Your task to perform on an android device: make emails show in primary in the gmail app Image 0: 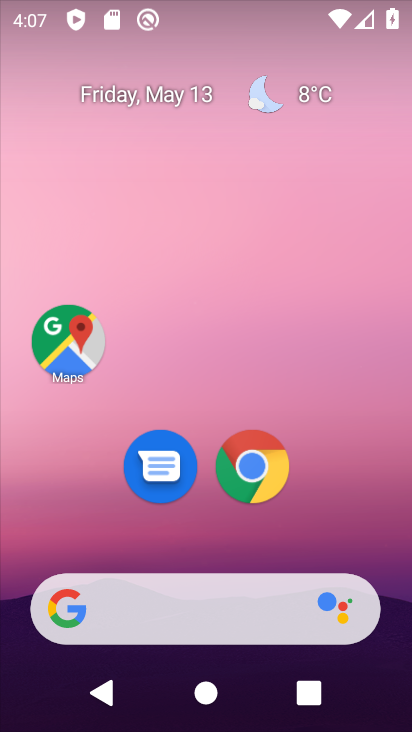
Step 0: drag from (393, 614) to (373, 171)
Your task to perform on an android device: make emails show in primary in the gmail app Image 1: 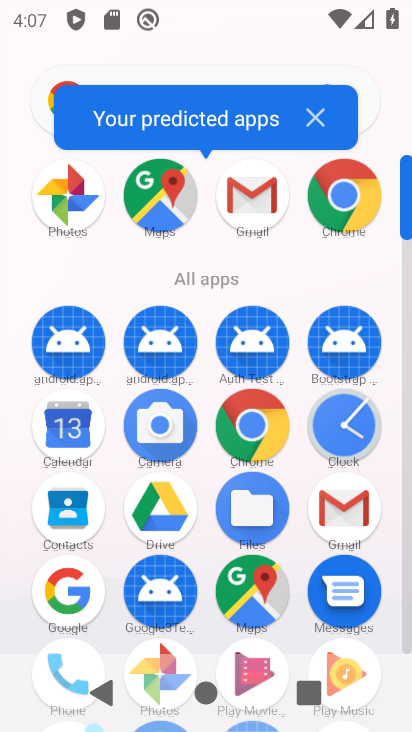
Step 1: click (345, 503)
Your task to perform on an android device: make emails show in primary in the gmail app Image 2: 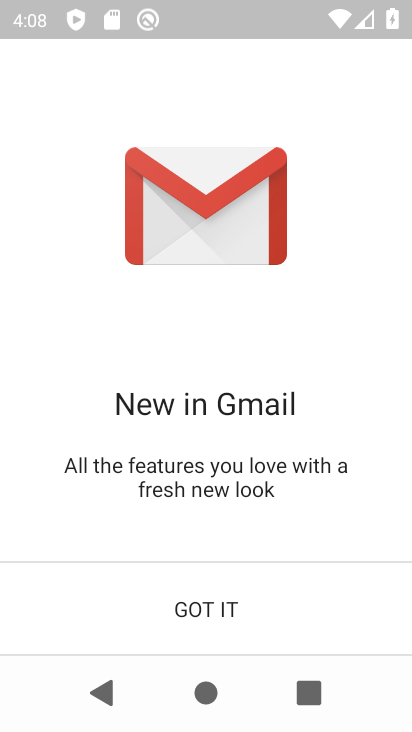
Step 2: click (232, 601)
Your task to perform on an android device: make emails show in primary in the gmail app Image 3: 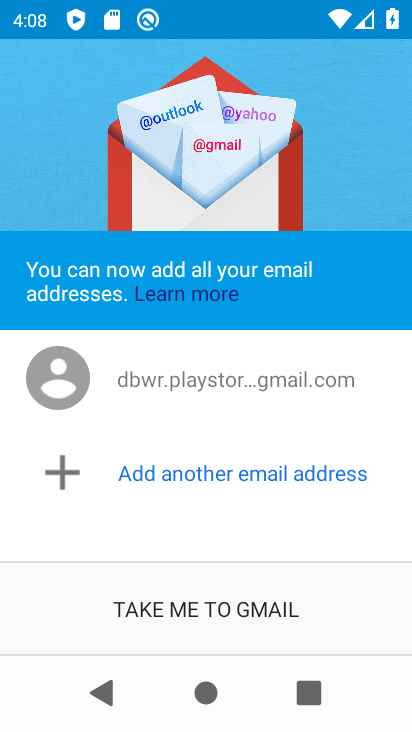
Step 3: click (212, 616)
Your task to perform on an android device: make emails show in primary in the gmail app Image 4: 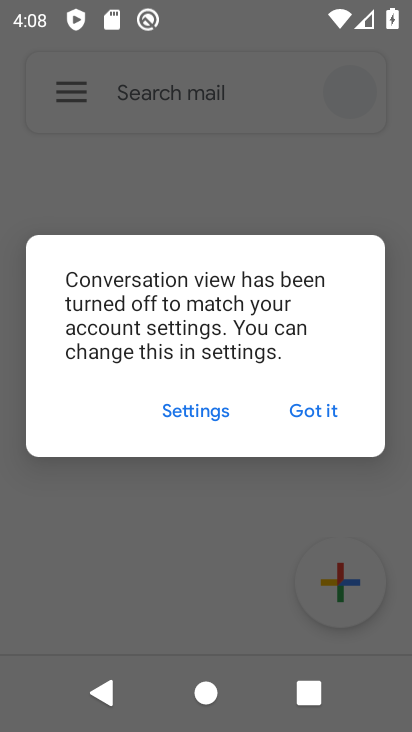
Step 4: click (313, 412)
Your task to perform on an android device: make emails show in primary in the gmail app Image 5: 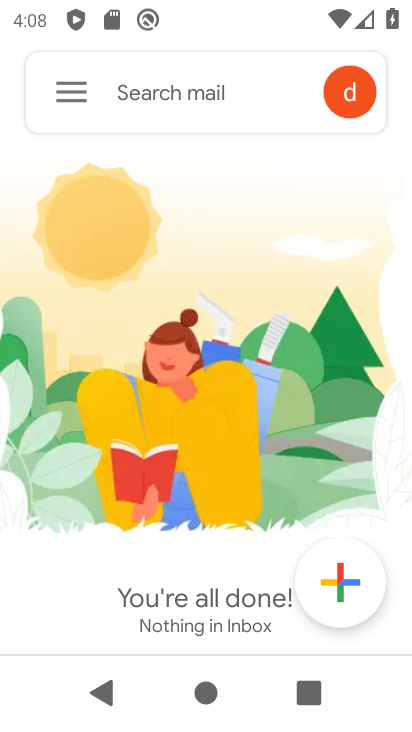
Step 5: click (73, 93)
Your task to perform on an android device: make emails show in primary in the gmail app Image 6: 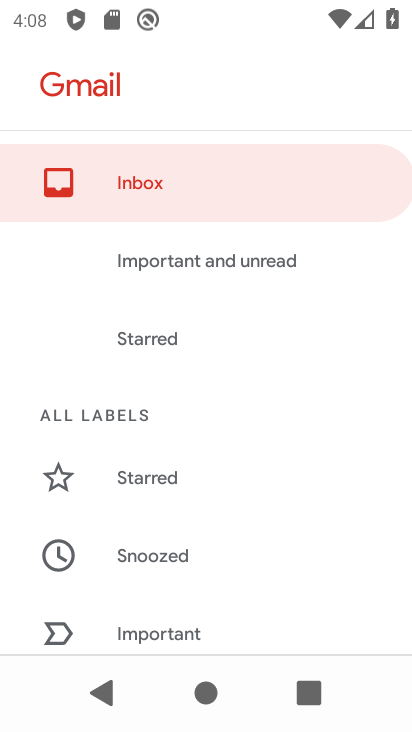
Step 6: drag from (261, 611) to (289, 181)
Your task to perform on an android device: make emails show in primary in the gmail app Image 7: 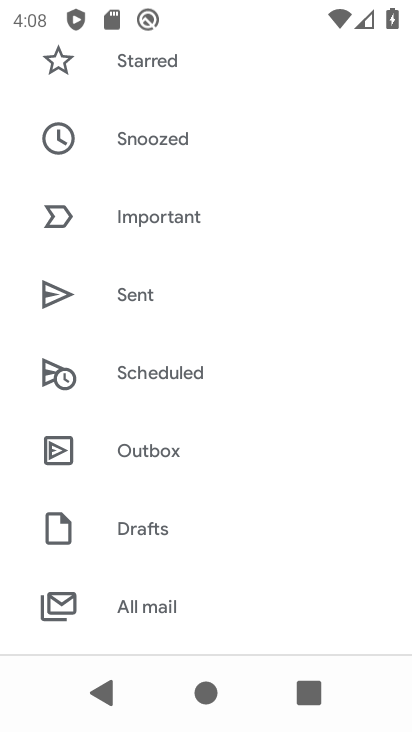
Step 7: drag from (243, 568) to (274, 228)
Your task to perform on an android device: make emails show in primary in the gmail app Image 8: 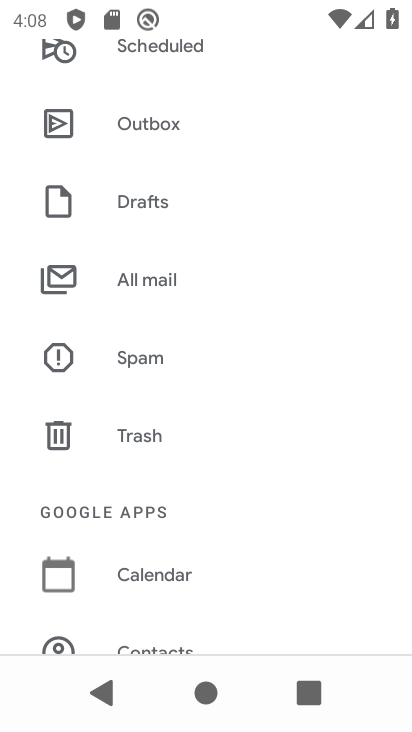
Step 8: drag from (259, 592) to (230, 131)
Your task to perform on an android device: make emails show in primary in the gmail app Image 9: 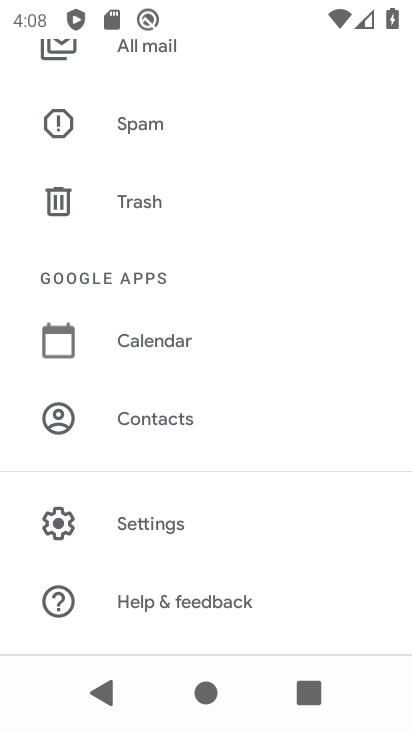
Step 9: click (163, 532)
Your task to perform on an android device: make emails show in primary in the gmail app Image 10: 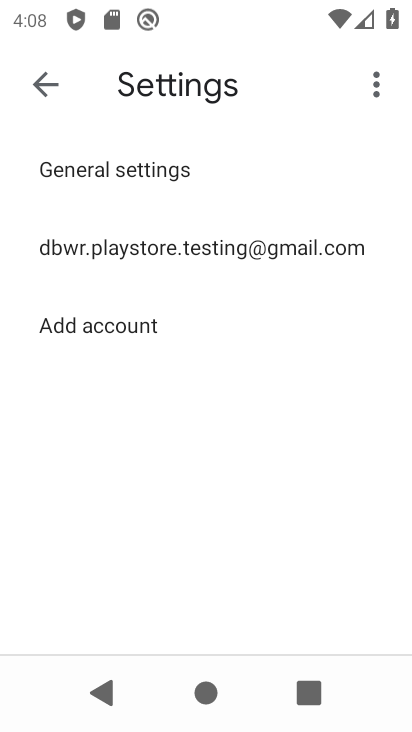
Step 10: click (149, 238)
Your task to perform on an android device: make emails show in primary in the gmail app Image 11: 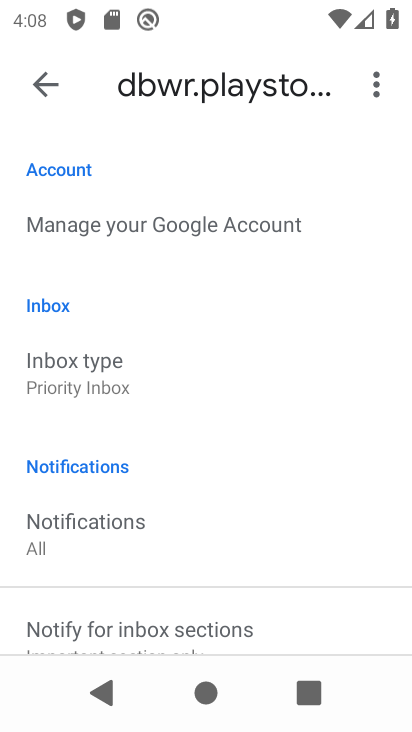
Step 11: click (84, 377)
Your task to perform on an android device: make emails show in primary in the gmail app Image 12: 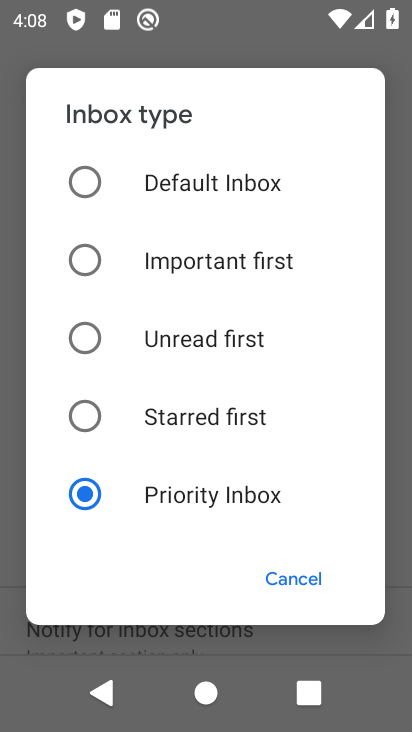
Step 12: click (88, 184)
Your task to perform on an android device: make emails show in primary in the gmail app Image 13: 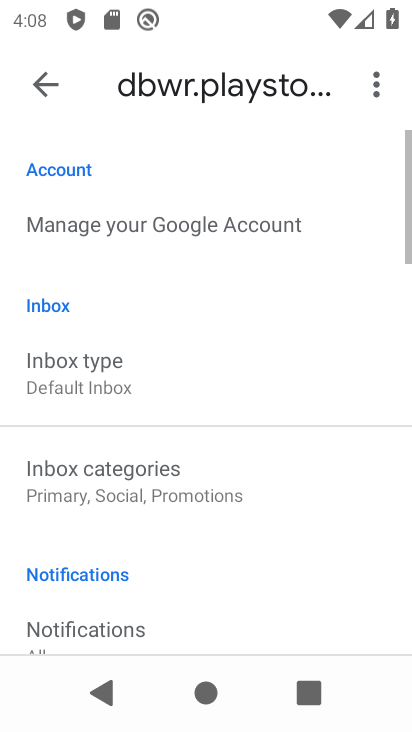
Step 13: click (112, 481)
Your task to perform on an android device: make emails show in primary in the gmail app Image 14: 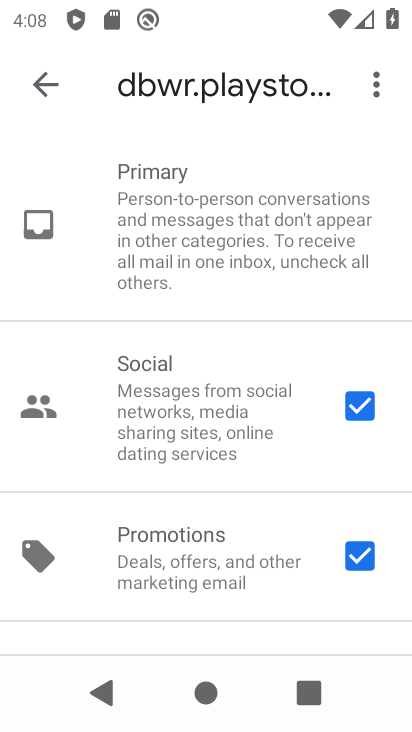
Step 14: click (368, 409)
Your task to perform on an android device: make emails show in primary in the gmail app Image 15: 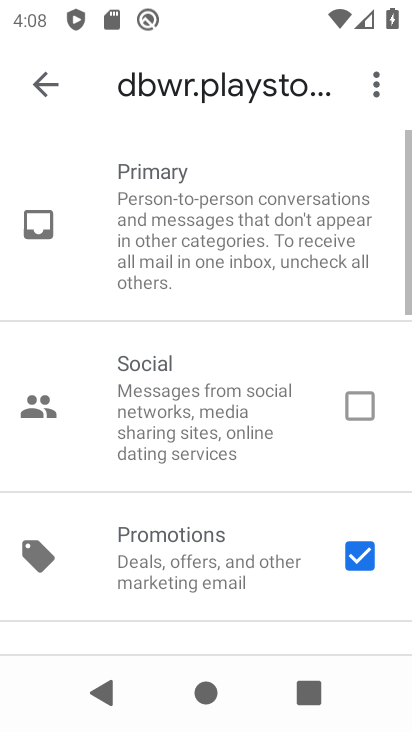
Step 15: click (360, 559)
Your task to perform on an android device: make emails show in primary in the gmail app Image 16: 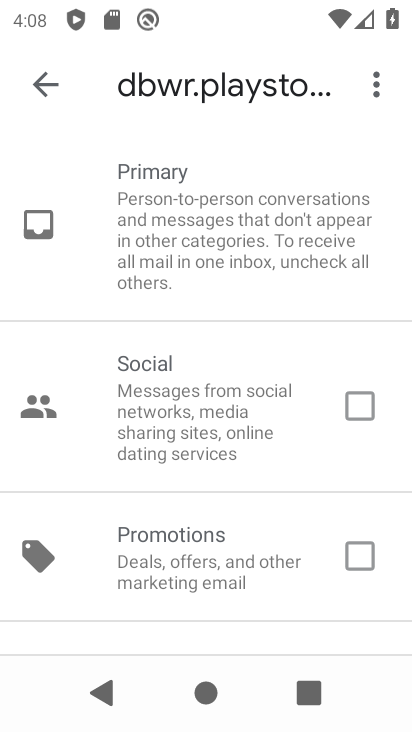
Step 16: task complete